Your task to perform on an android device: Open privacy settings Image 0: 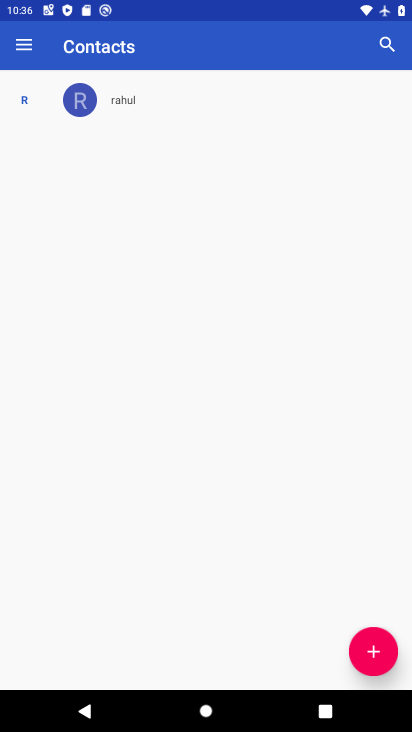
Step 0: click (269, 626)
Your task to perform on an android device: Open privacy settings Image 1: 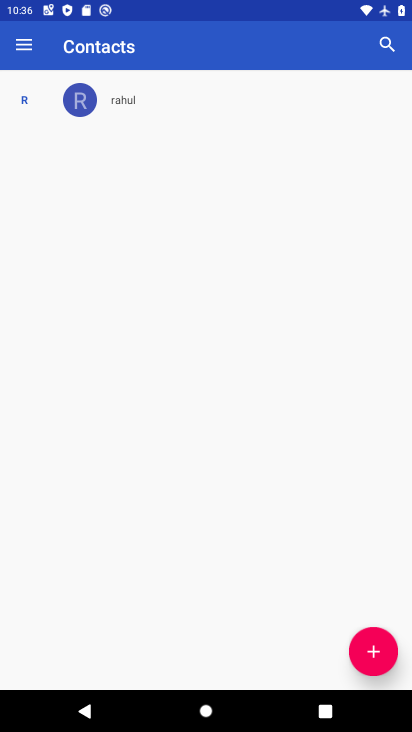
Step 1: press home button
Your task to perform on an android device: Open privacy settings Image 2: 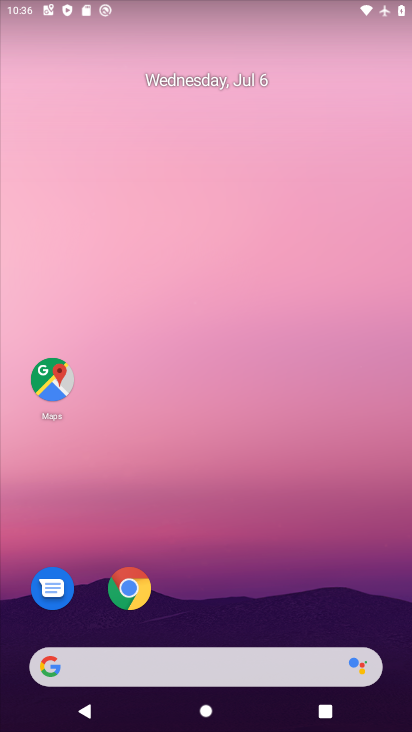
Step 2: drag from (247, 576) to (220, 409)
Your task to perform on an android device: Open privacy settings Image 3: 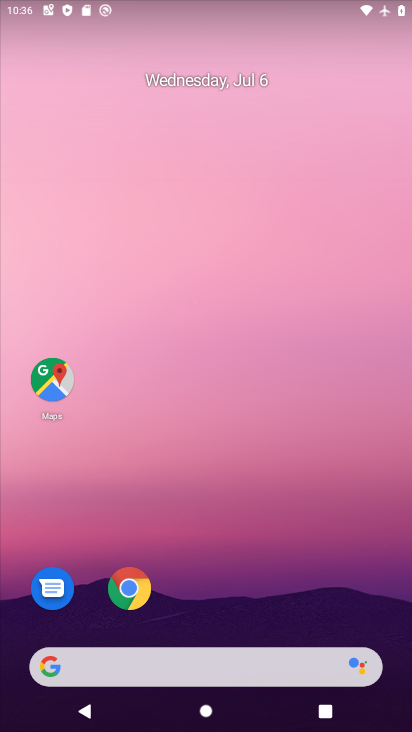
Step 3: drag from (214, 666) to (254, 200)
Your task to perform on an android device: Open privacy settings Image 4: 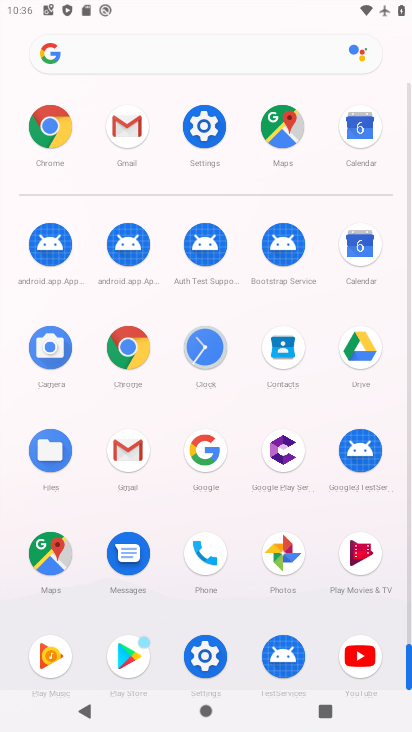
Step 4: click (205, 126)
Your task to perform on an android device: Open privacy settings Image 5: 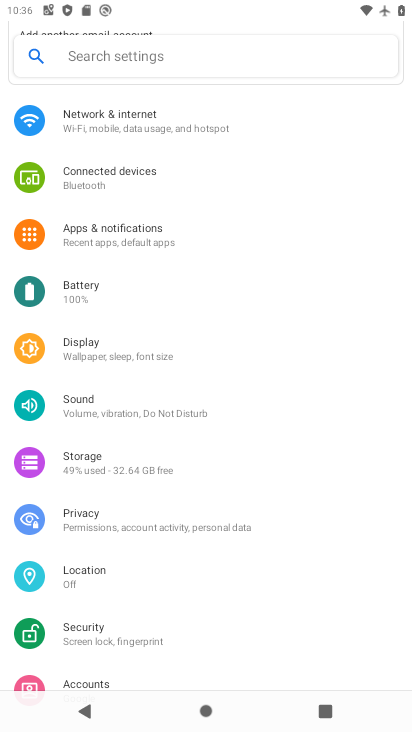
Step 5: click (132, 516)
Your task to perform on an android device: Open privacy settings Image 6: 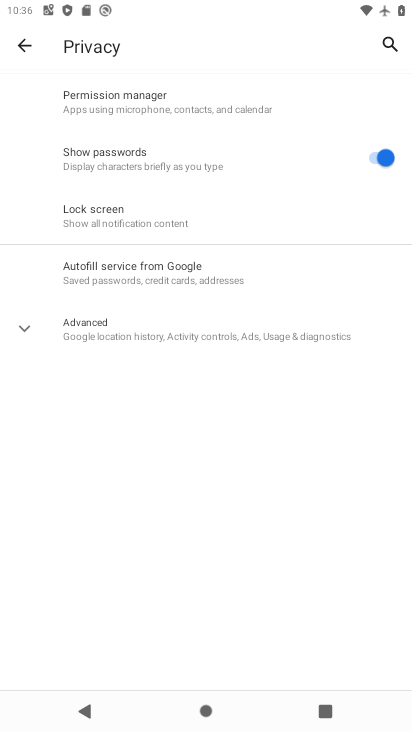
Step 6: task complete